Your task to perform on an android device: When is my next meeting? Image 0: 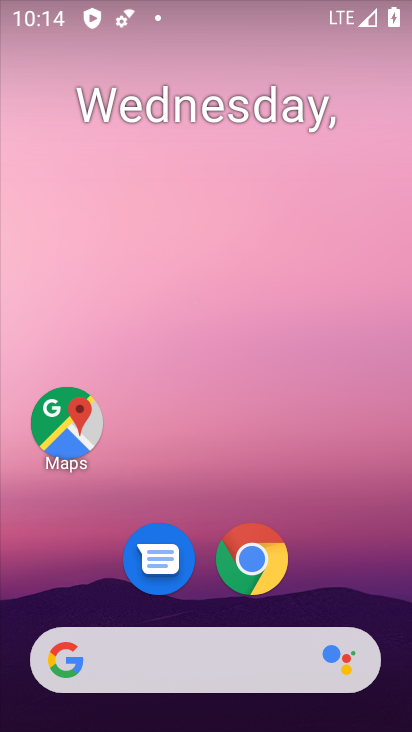
Step 0: drag from (344, 524) to (323, 5)
Your task to perform on an android device: When is my next meeting? Image 1: 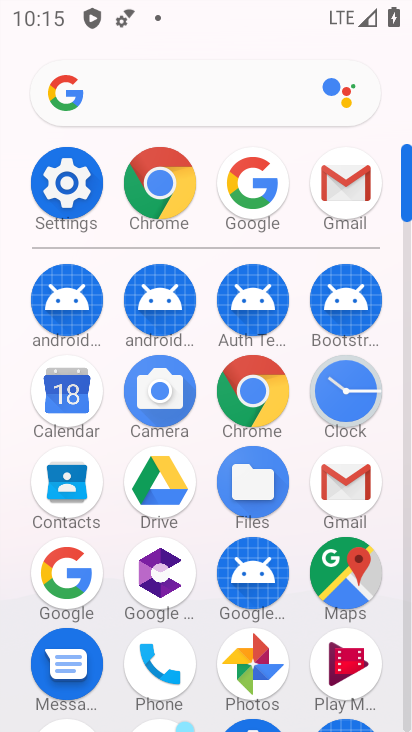
Step 1: click (64, 389)
Your task to perform on an android device: When is my next meeting? Image 2: 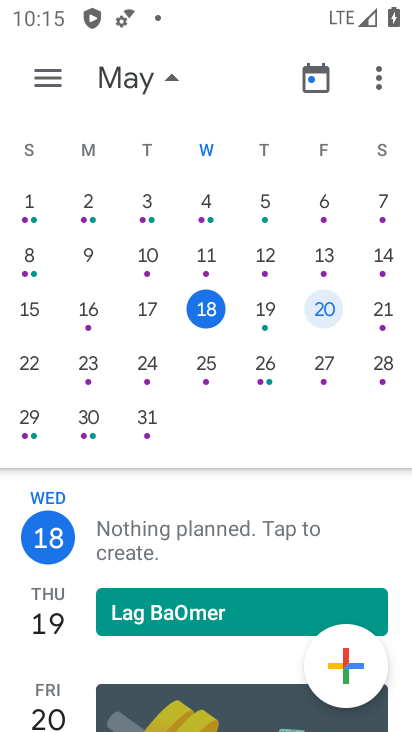
Step 2: click (252, 315)
Your task to perform on an android device: When is my next meeting? Image 3: 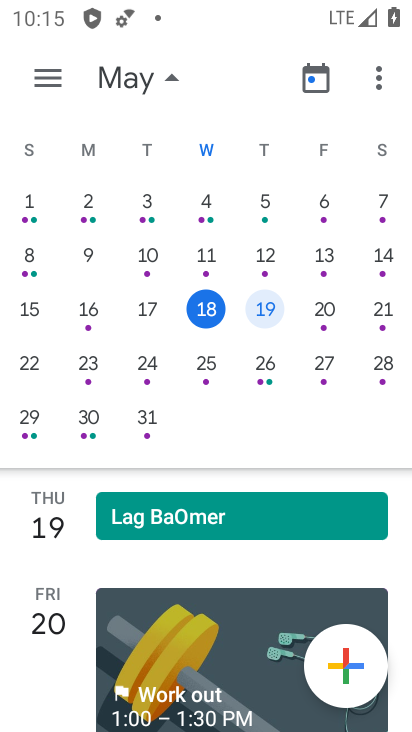
Step 3: task complete